Your task to perform on an android device: toggle location history Image 0: 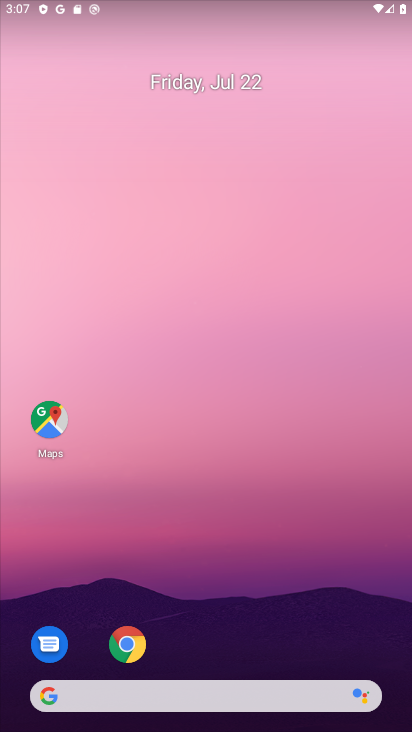
Step 0: drag from (221, 730) to (181, 123)
Your task to perform on an android device: toggle location history Image 1: 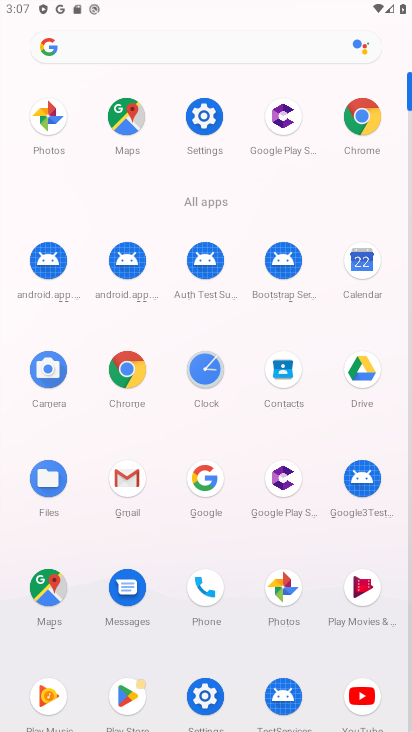
Step 1: click (205, 118)
Your task to perform on an android device: toggle location history Image 2: 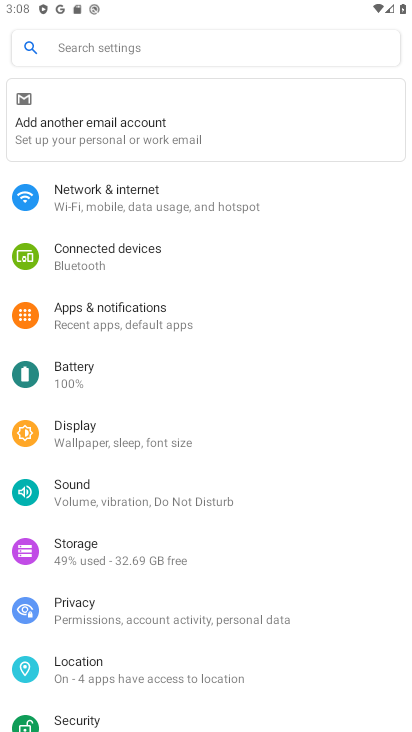
Step 2: click (76, 661)
Your task to perform on an android device: toggle location history Image 3: 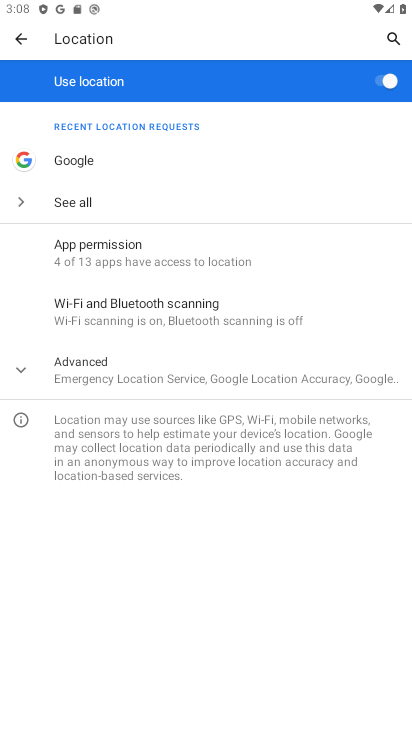
Step 3: click (99, 368)
Your task to perform on an android device: toggle location history Image 4: 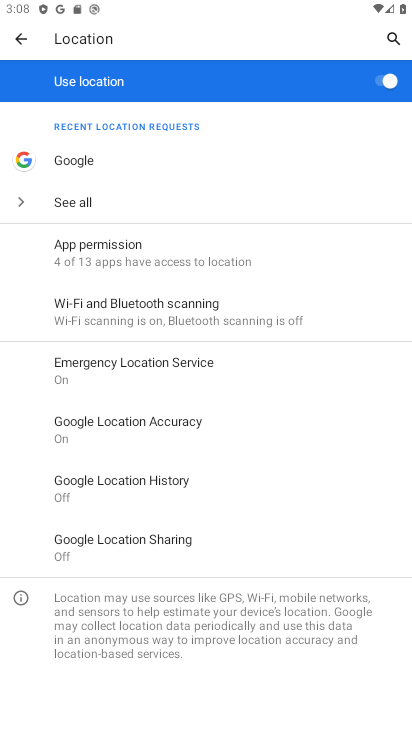
Step 4: click (118, 479)
Your task to perform on an android device: toggle location history Image 5: 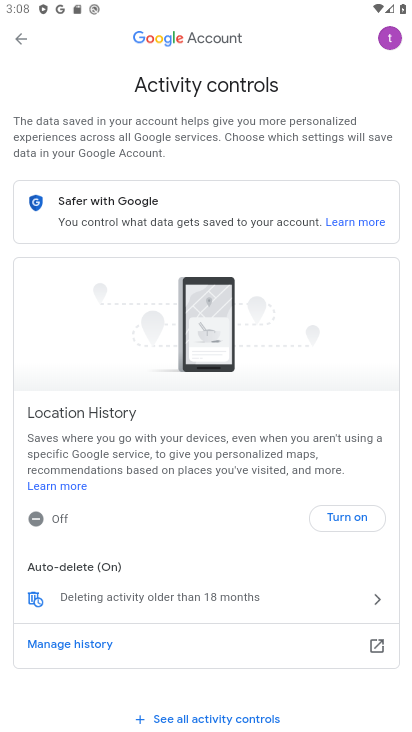
Step 5: click (362, 517)
Your task to perform on an android device: toggle location history Image 6: 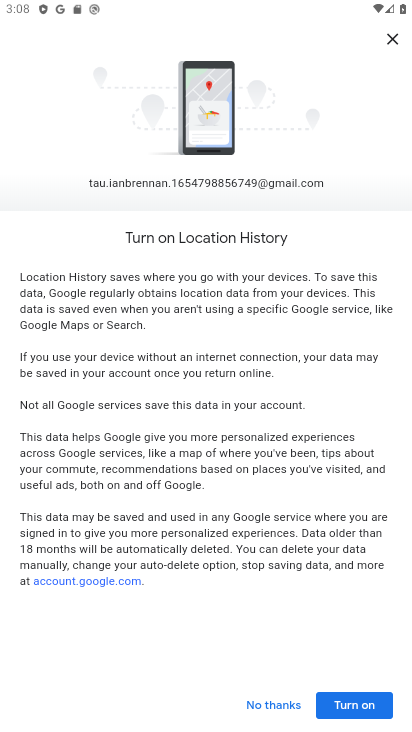
Step 6: click (353, 703)
Your task to perform on an android device: toggle location history Image 7: 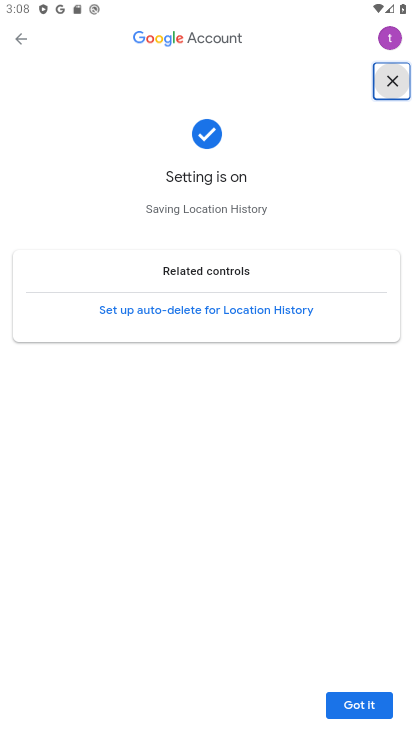
Step 7: click (363, 700)
Your task to perform on an android device: toggle location history Image 8: 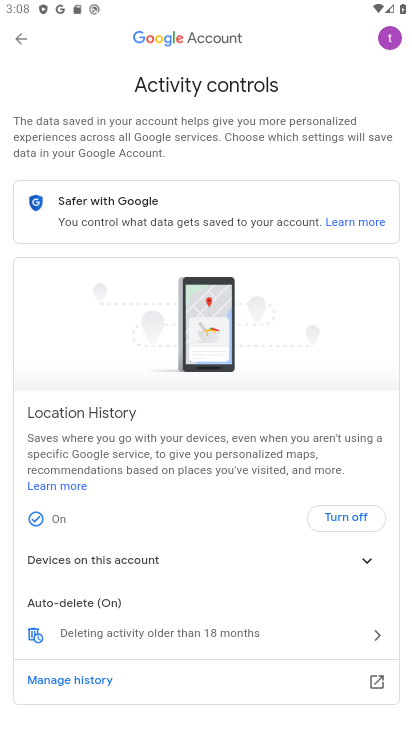
Step 8: task complete